Your task to perform on an android device: set default search engine in the chrome app Image 0: 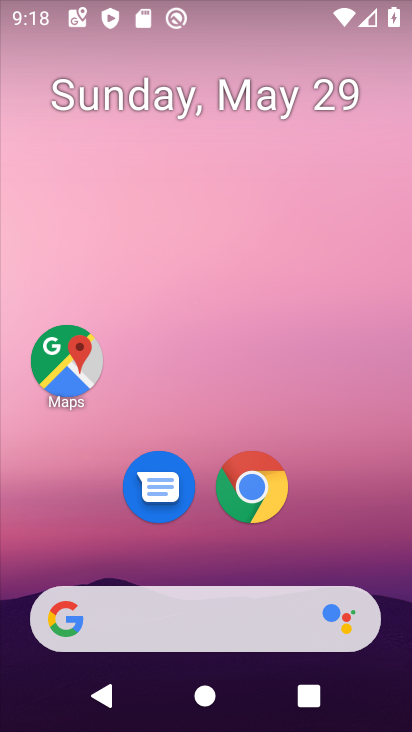
Step 0: click (240, 480)
Your task to perform on an android device: set default search engine in the chrome app Image 1: 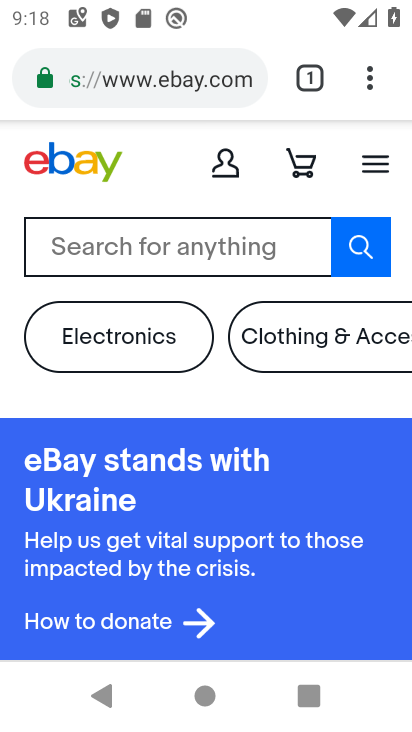
Step 1: click (373, 91)
Your task to perform on an android device: set default search engine in the chrome app Image 2: 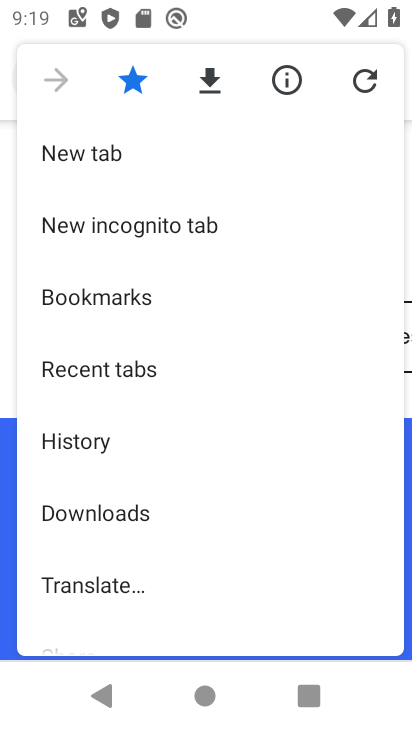
Step 2: drag from (244, 552) to (238, 273)
Your task to perform on an android device: set default search engine in the chrome app Image 3: 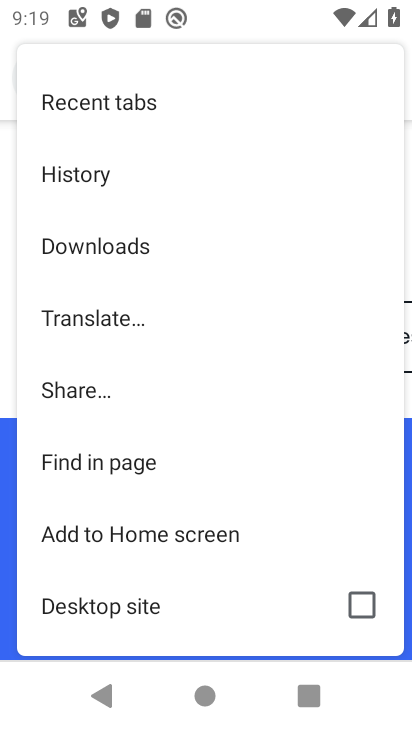
Step 3: drag from (256, 480) to (267, 230)
Your task to perform on an android device: set default search engine in the chrome app Image 4: 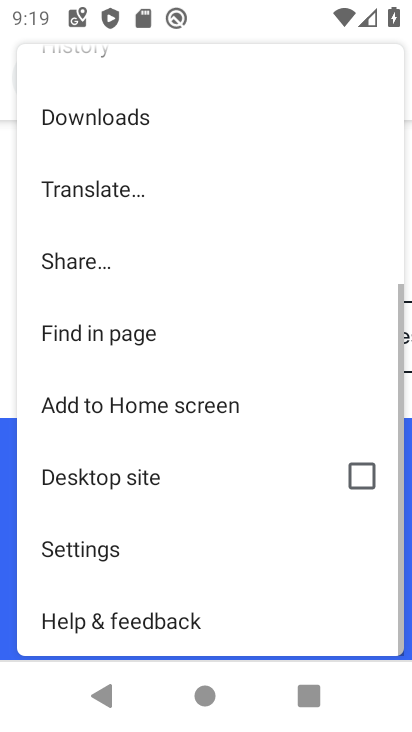
Step 4: click (88, 552)
Your task to perform on an android device: set default search engine in the chrome app Image 5: 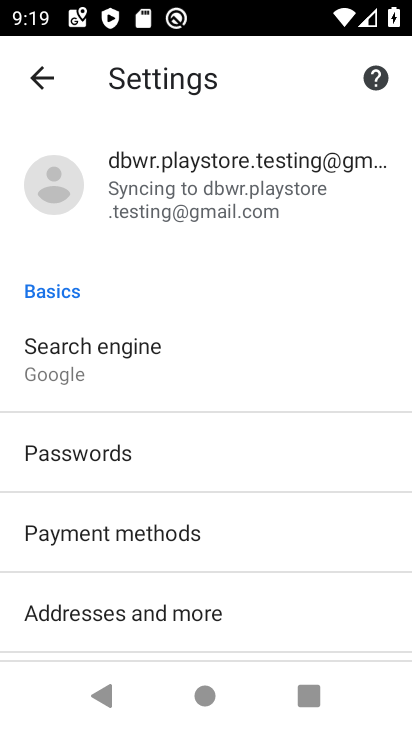
Step 5: click (123, 358)
Your task to perform on an android device: set default search engine in the chrome app Image 6: 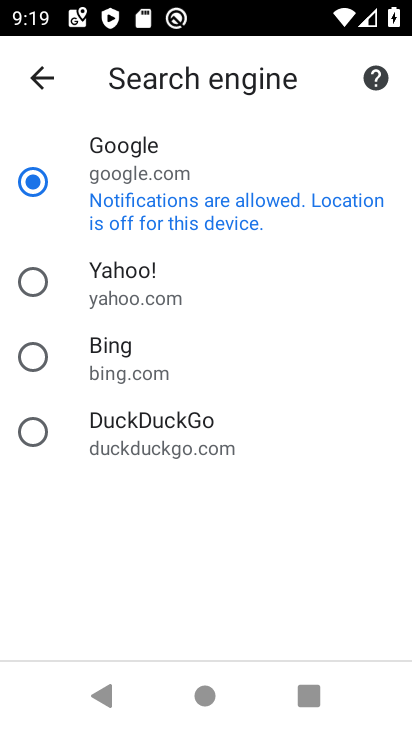
Step 6: click (134, 280)
Your task to perform on an android device: set default search engine in the chrome app Image 7: 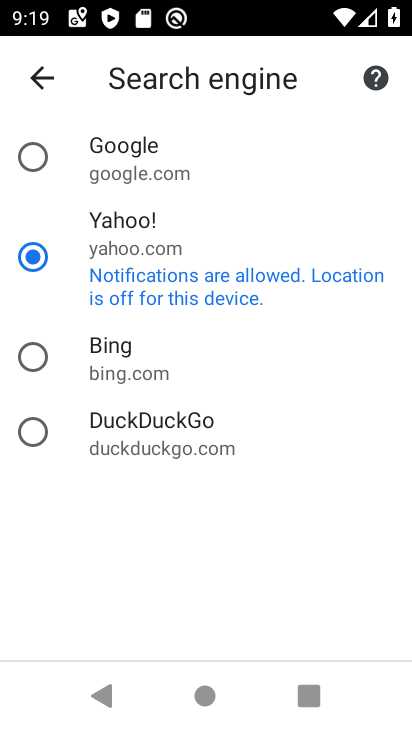
Step 7: task complete